Your task to perform on an android device: check battery use Image 0: 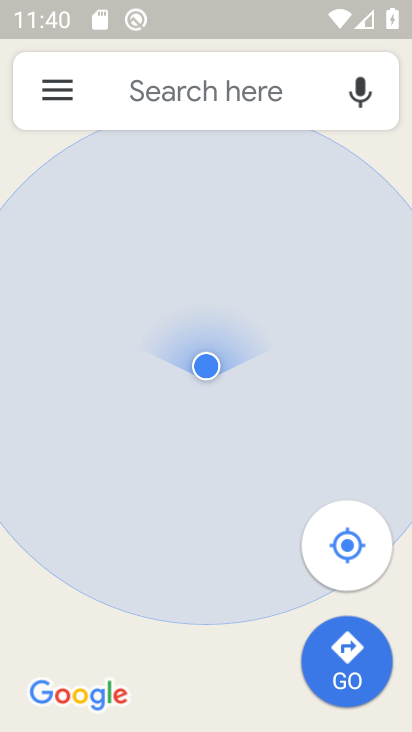
Step 0: press home button
Your task to perform on an android device: check battery use Image 1: 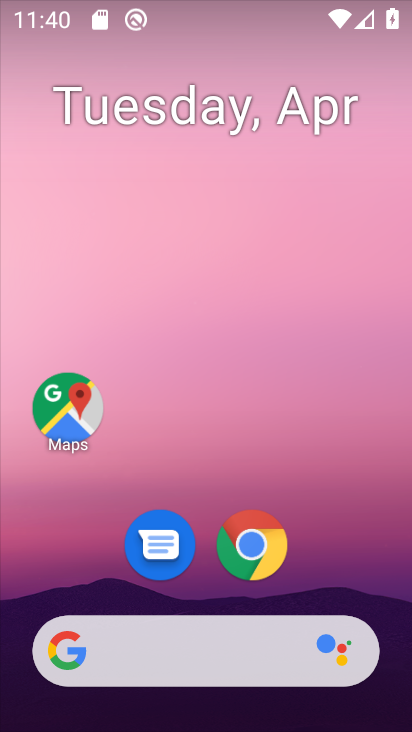
Step 1: click (314, 64)
Your task to perform on an android device: check battery use Image 2: 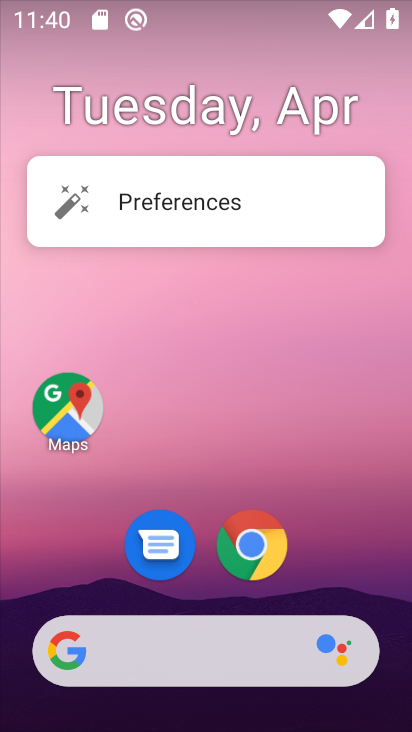
Step 2: drag from (363, 559) to (333, 109)
Your task to perform on an android device: check battery use Image 3: 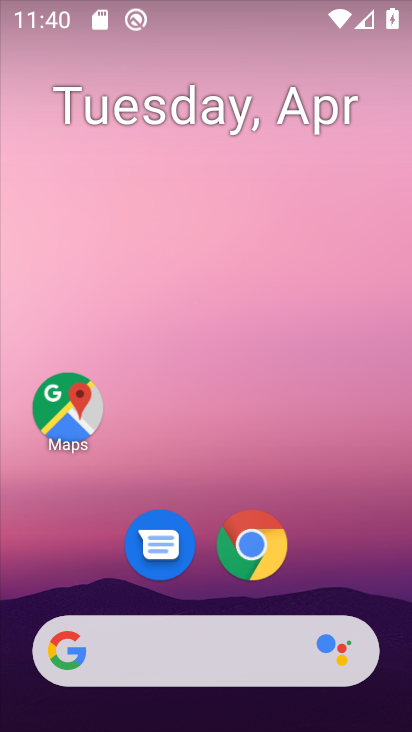
Step 3: drag from (397, 292) to (379, 96)
Your task to perform on an android device: check battery use Image 4: 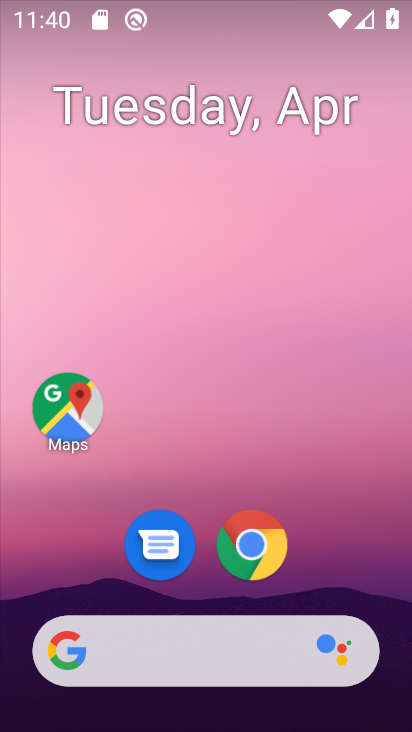
Step 4: drag from (381, 531) to (368, 60)
Your task to perform on an android device: check battery use Image 5: 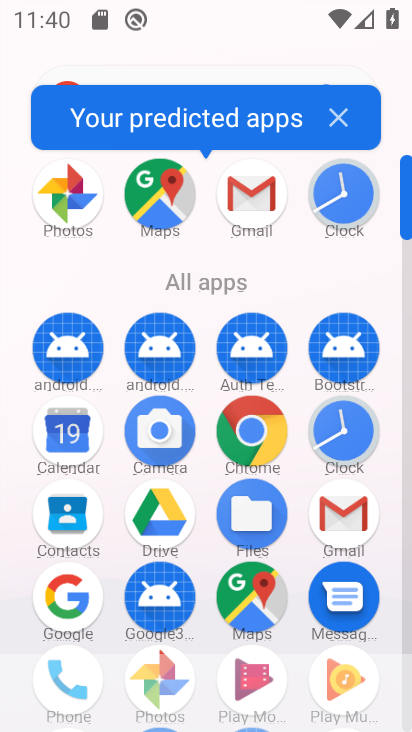
Step 5: drag from (406, 546) to (392, 253)
Your task to perform on an android device: check battery use Image 6: 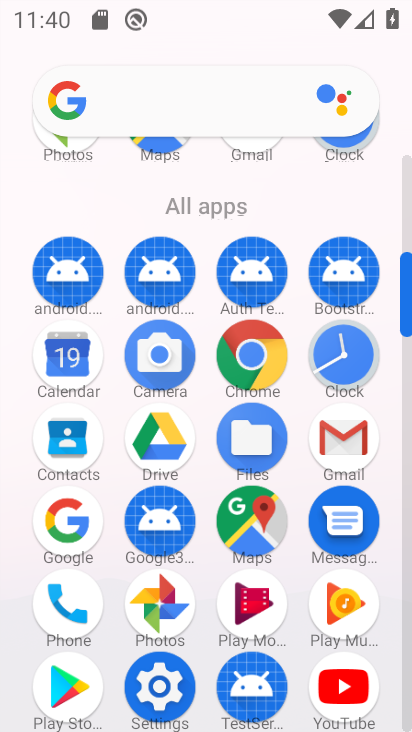
Step 6: click (143, 699)
Your task to perform on an android device: check battery use Image 7: 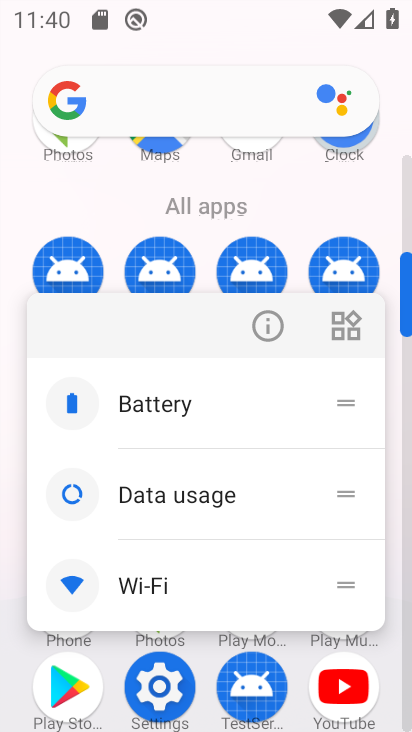
Step 7: click (153, 688)
Your task to perform on an android device: check battery use Image 8: 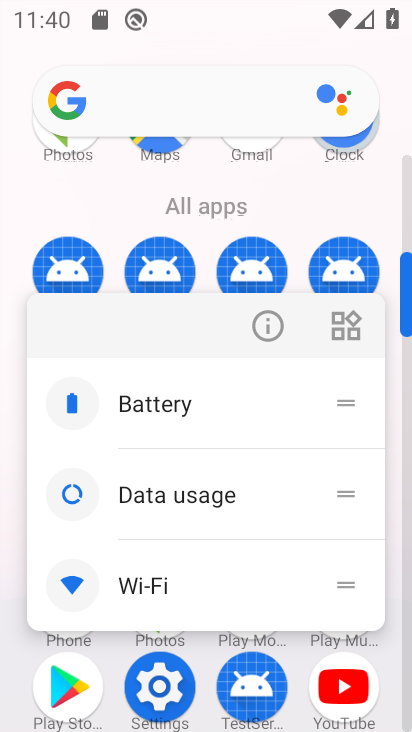
Step 8: click (154, 686)
Your task to perform on an android device: check battery use Image 9: 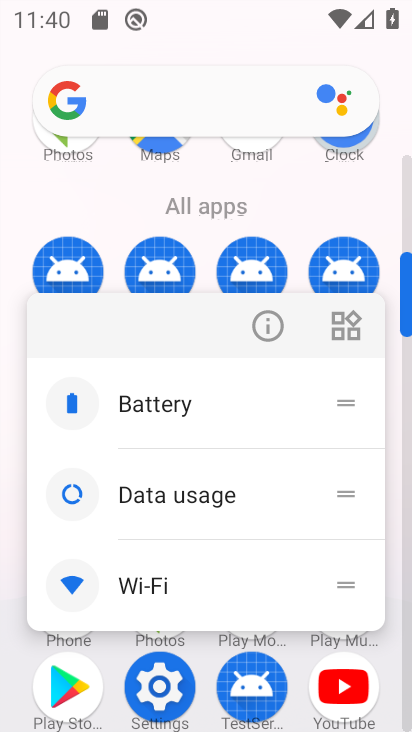
Step 9: click (154, 686)
Your task to perform on an android device: check battery use Image 10: 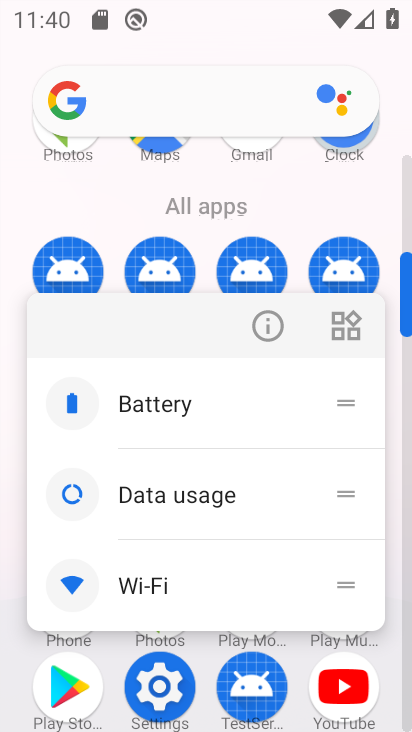
Step 10: click (175, 676)
Your task to perform on an android device: check battery use Image 11: 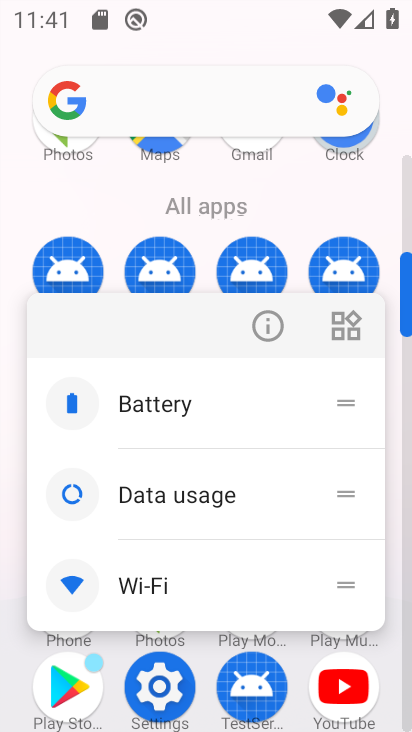
Step 11: click (174, 676)
Your task to perform on an android device: check battery use Image 12: 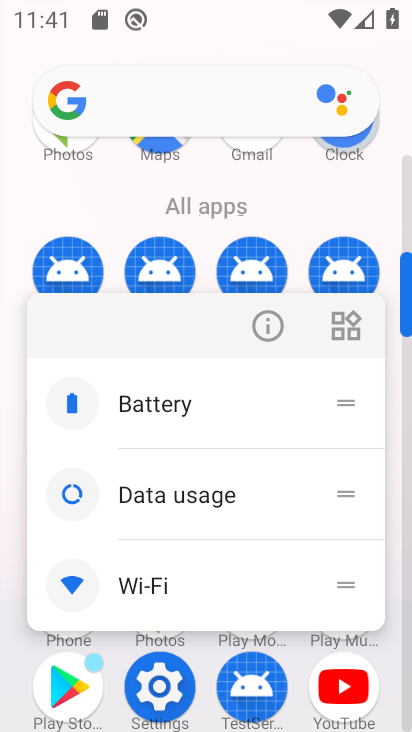
Step 12: click (174, 676)
Your task to perform on an android device: check battery use Image 13: 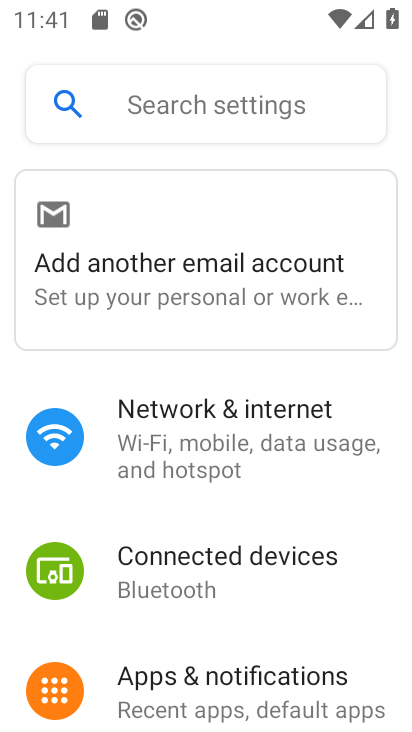
Step 13: drag from (222, 574) to (206, 161)
Your task to perform on an android device: check battery use Image 14: 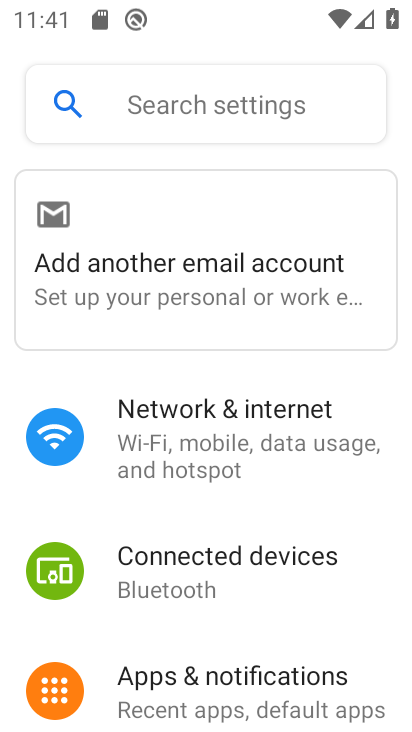
Step 14: drag from (242, 626) to (287, 257)
Your task to perform on an android device: check battery use Image 15: 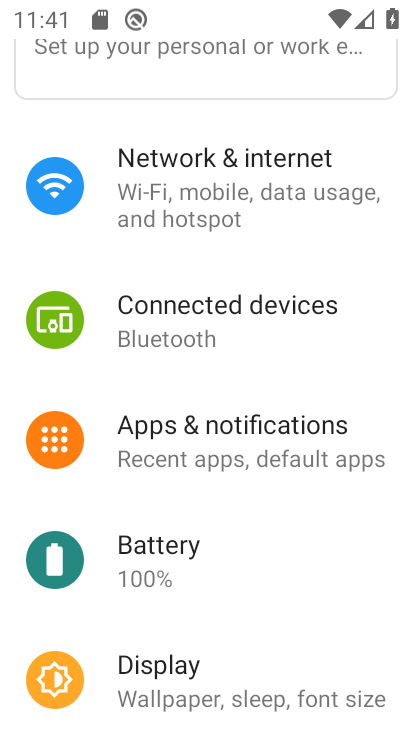
Step 15: click (172, 573)
Your task to perform on an android device: check battery use Image 16: 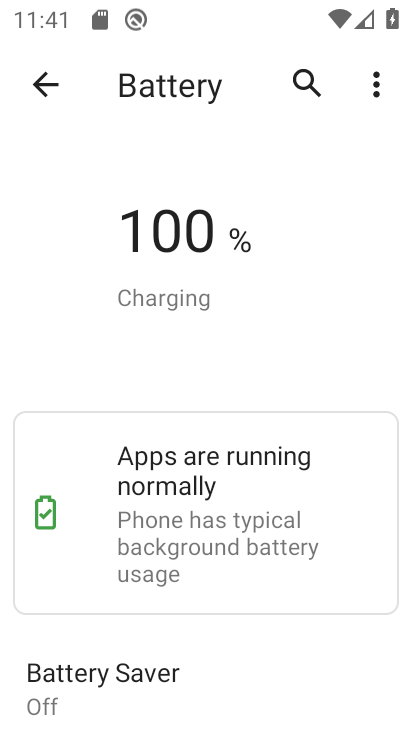
Step 16: task complete